Your task to perform on an android device: Is it going to rain tomorrow? Image 0: 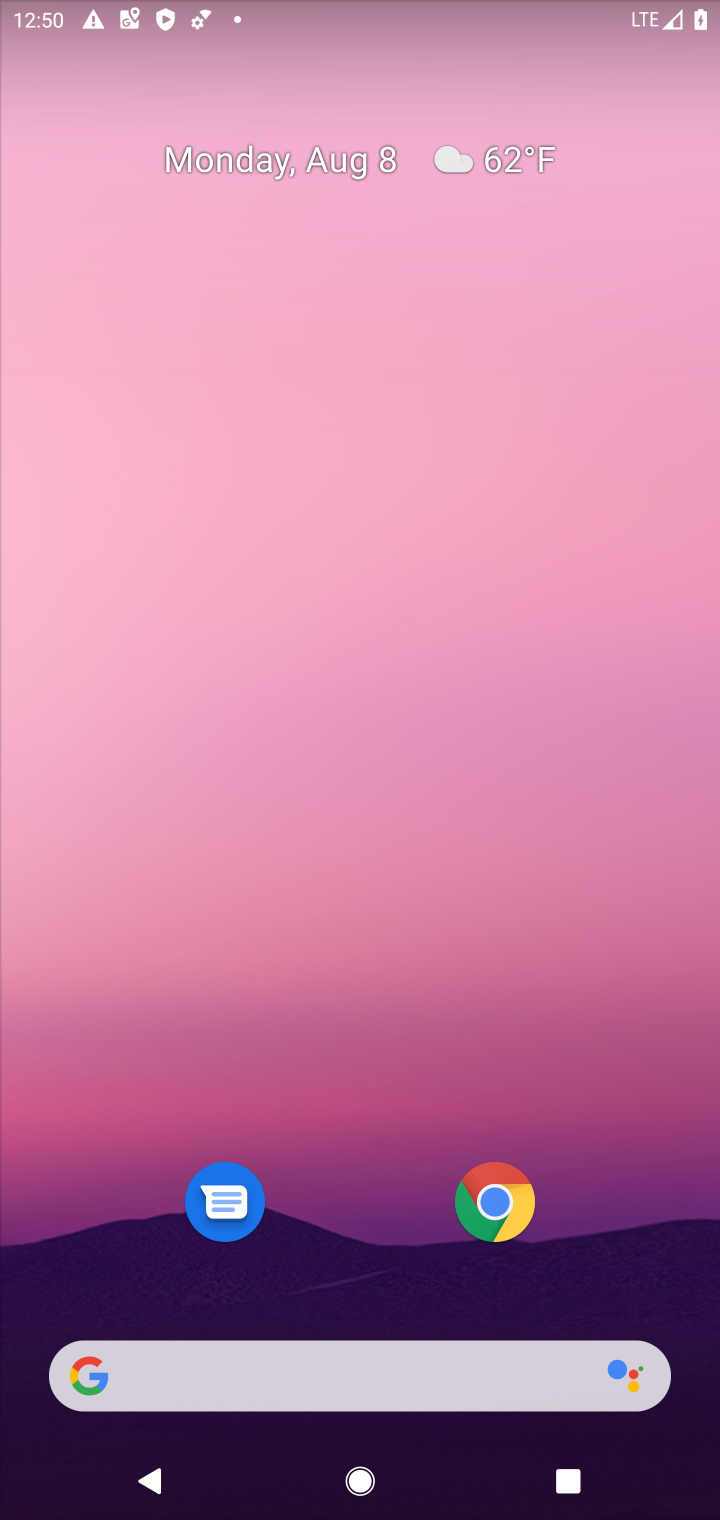
Step 0: drag from (313, 681) to (288, 373)
Your task to perform on an android device: Is it going to rain tomorrow? Image 1: 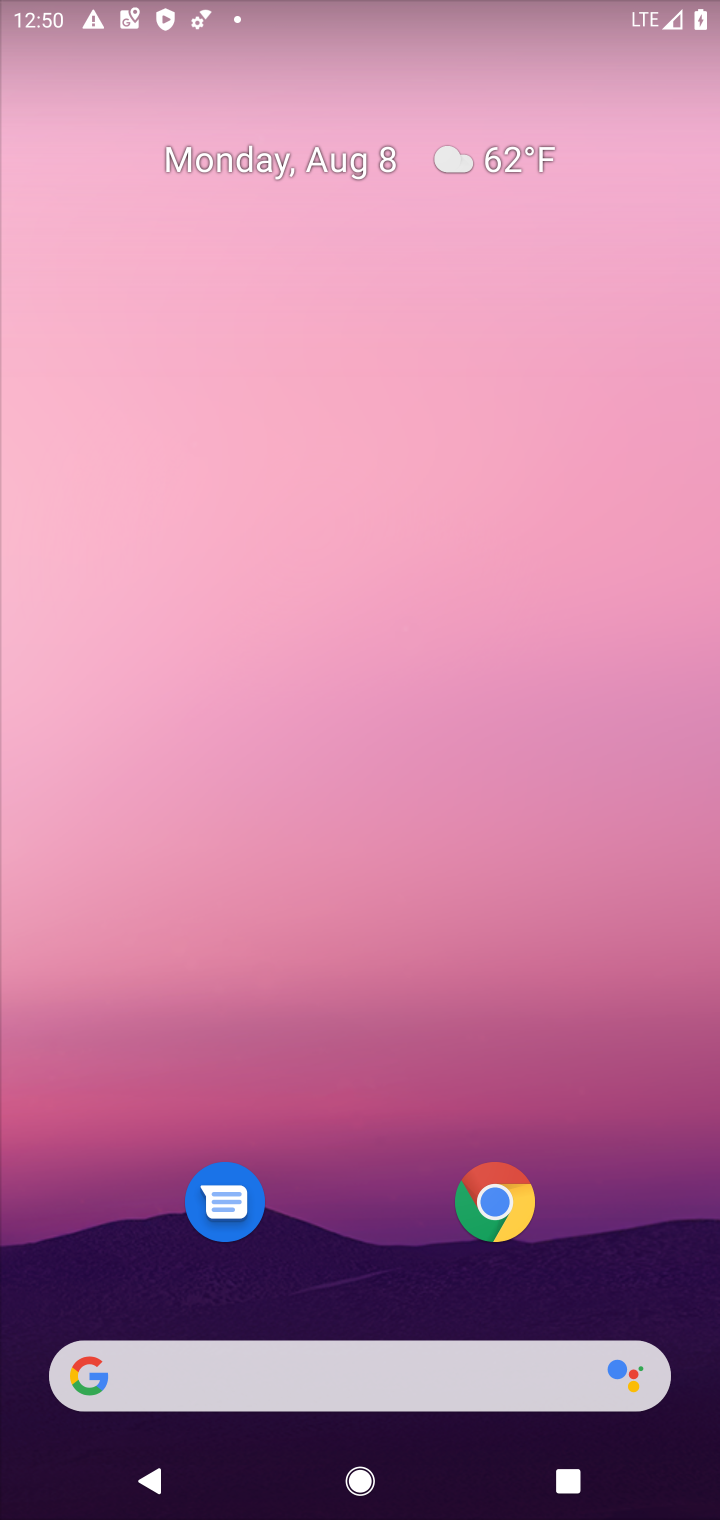
Step 1: click (322, 194)
Your task to perform on an android device: Is it going to rain tomorrow? Image 2: 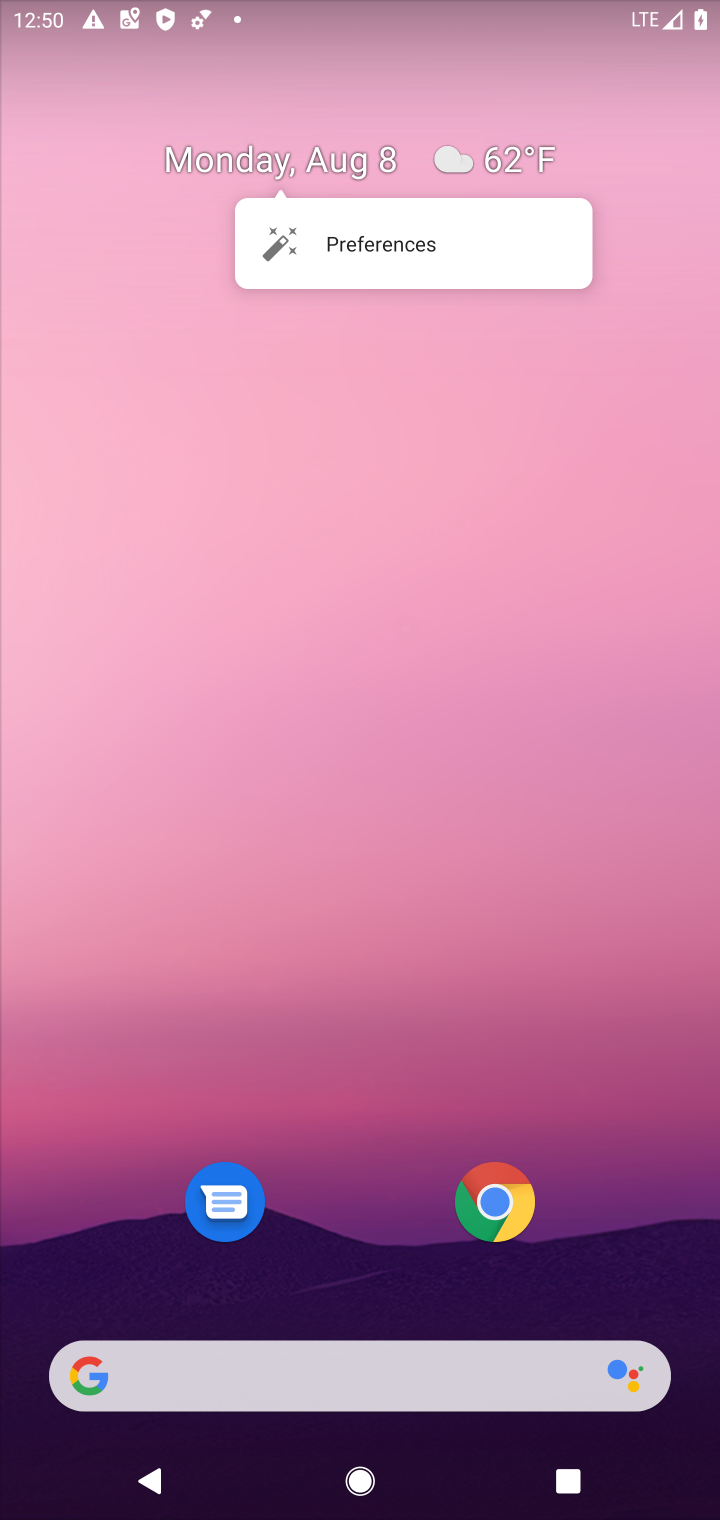
Step 2: drag from (364, 1171) to (387, 116)
Your task to perform on an android device: Is it going to rain tomorrow? Image 3: 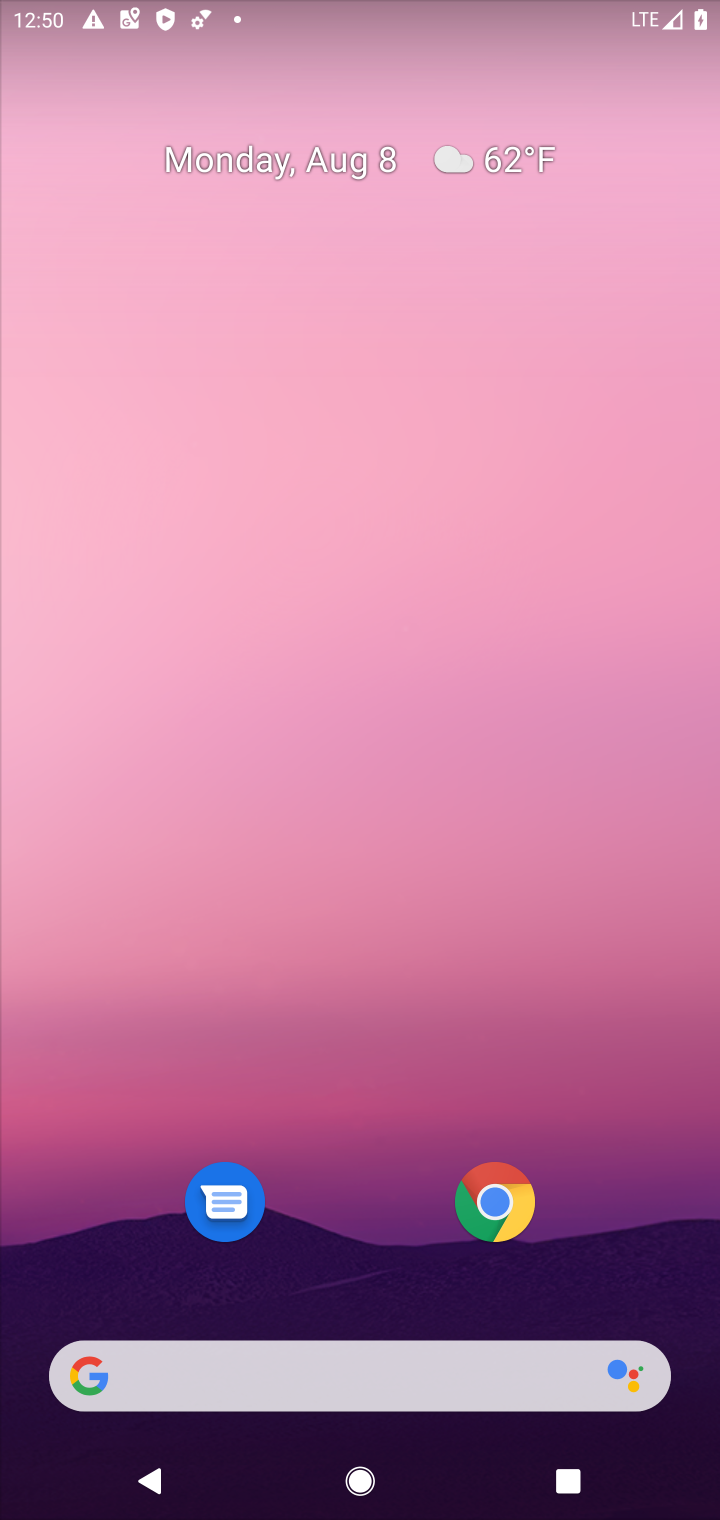
Step 3: drag from (370, 1260) to (322, 382)
Your task to perform on an android device: Is it going to rain tomorrow? Image 4: 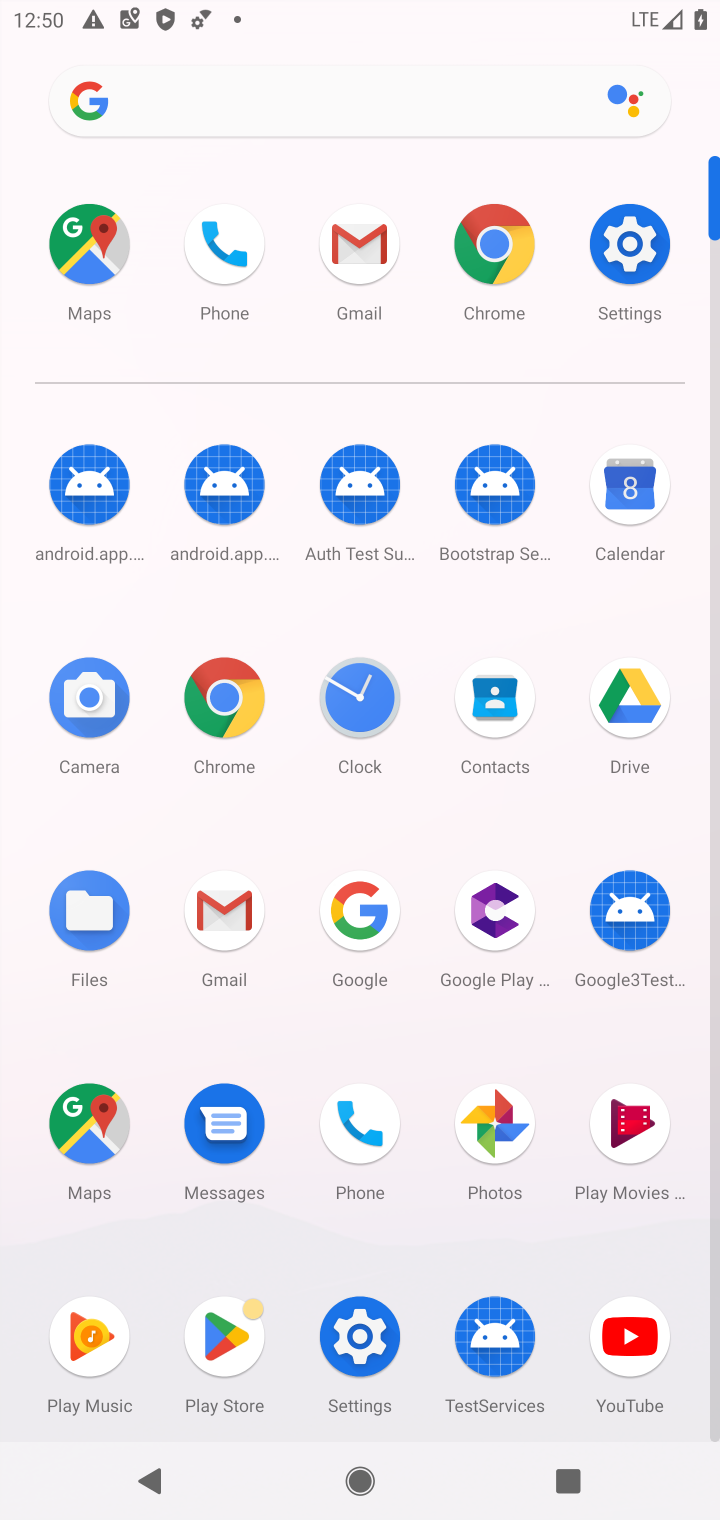
Step 4: click (346, 906)
Your task to perform on an android device: Is it going to rain tomorrow? Image 5: 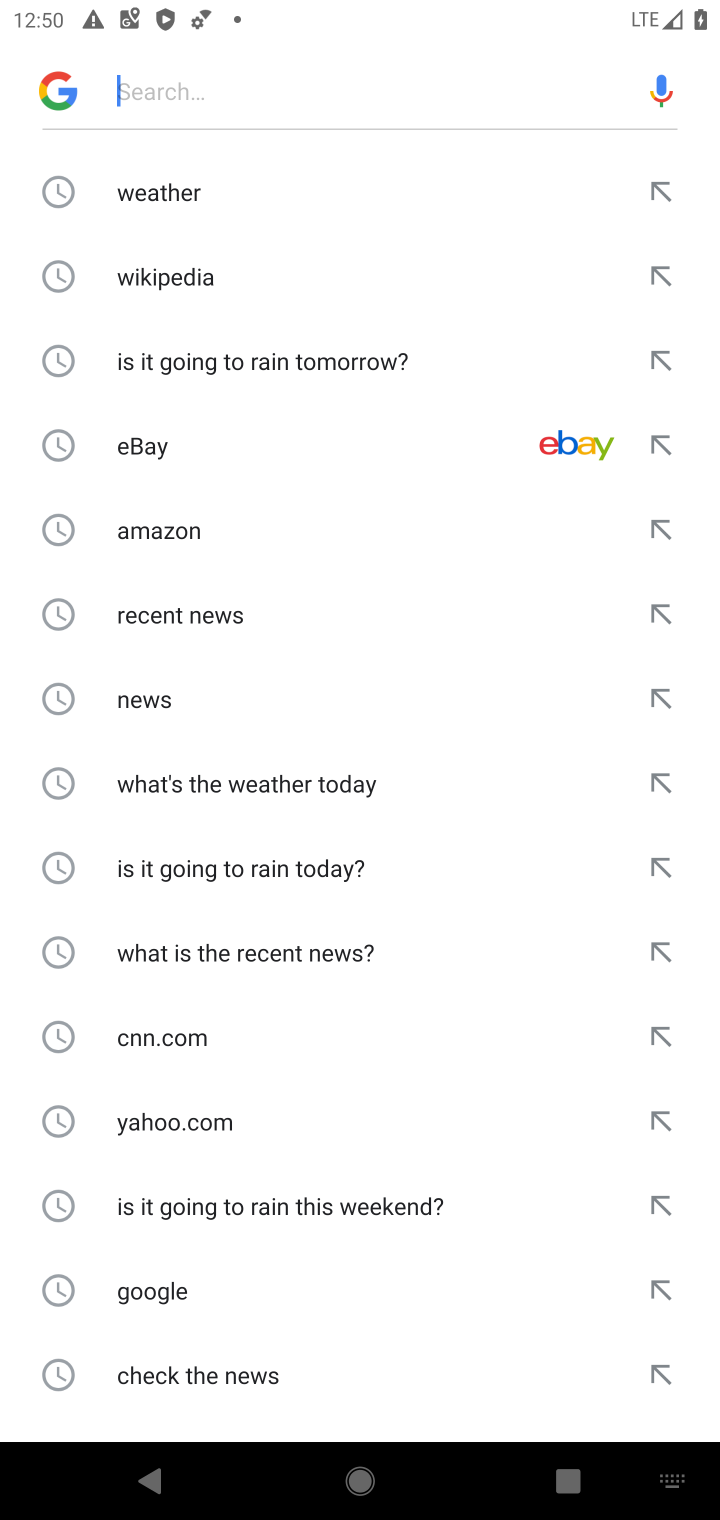
Step 5: click (142, 186)
Your task to perform on an android device: Is it going to rain tomorrow? Image 6: 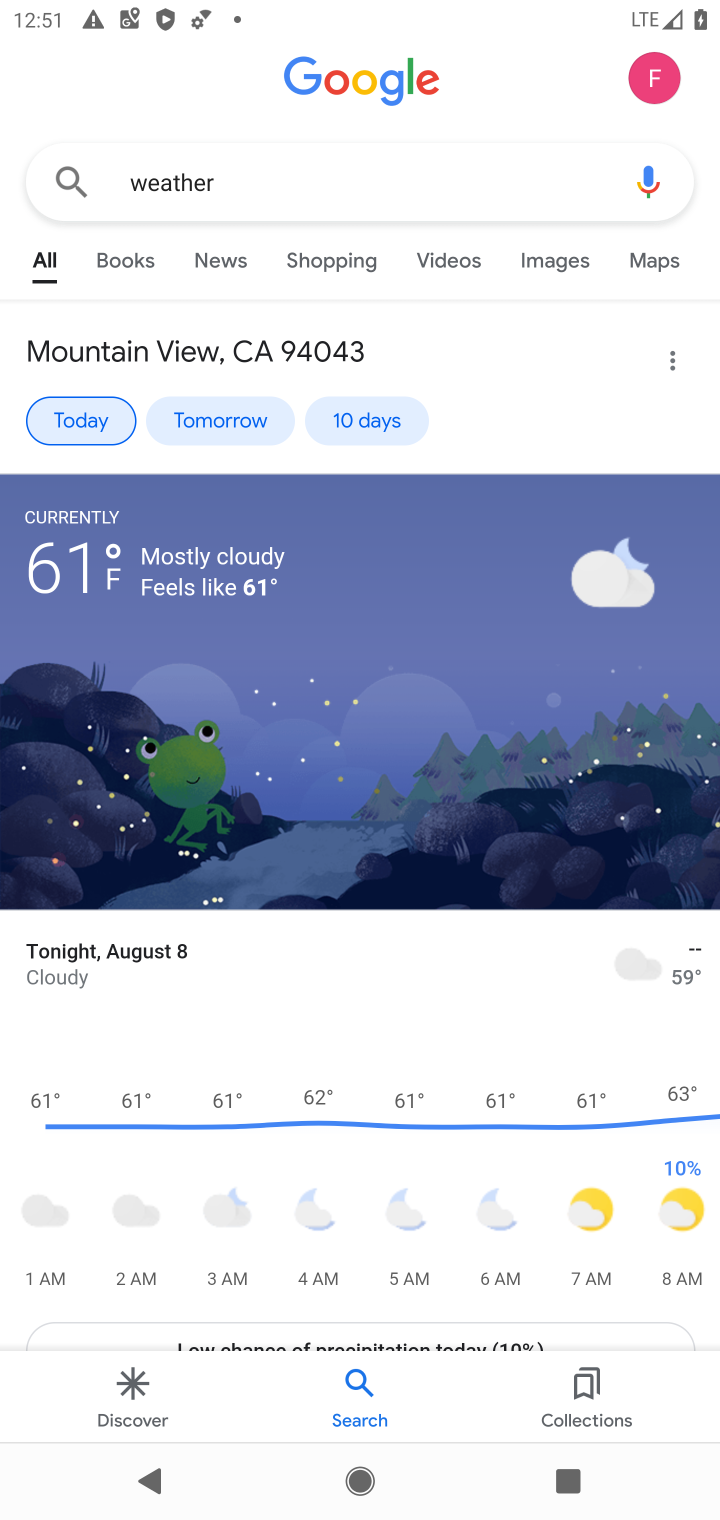
Step 6: click (223, 429)
Your task to perform on an android device: Is it going to rain tomorrow? Image 7: 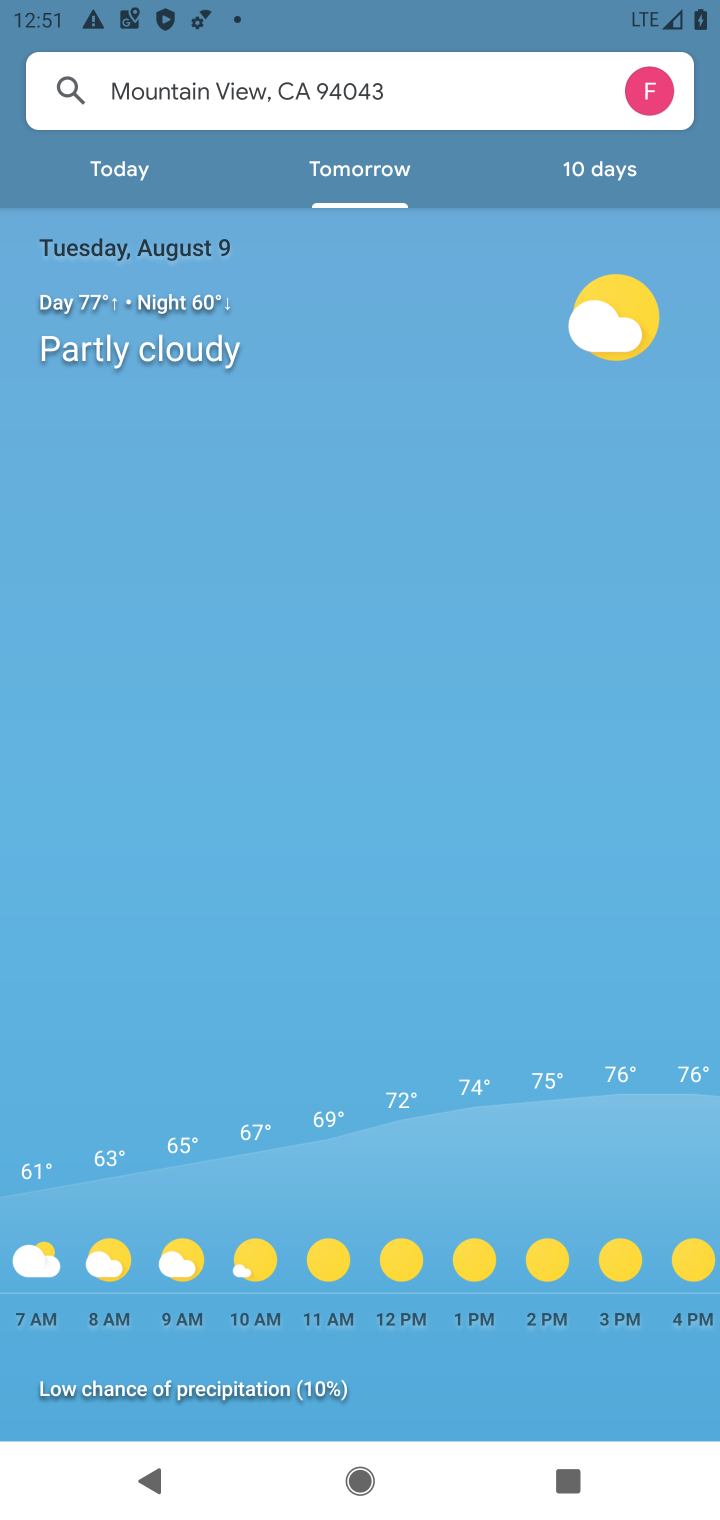
Step 7: task complete